Your task to perform on an android device: Check the news Image 0: 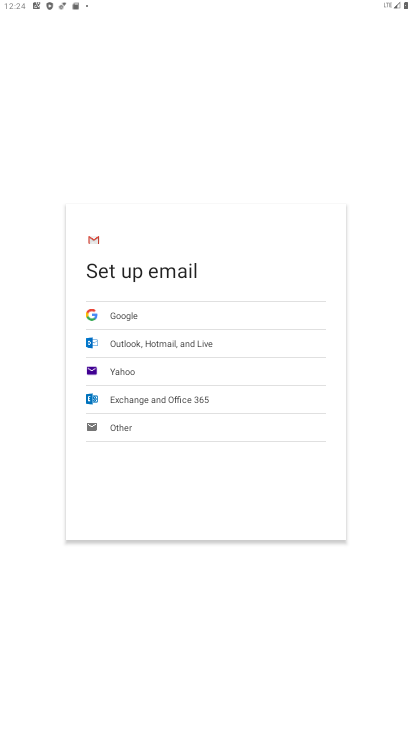
Step 0: press home button
Your task to perform on an android device: Check the news Image 1: 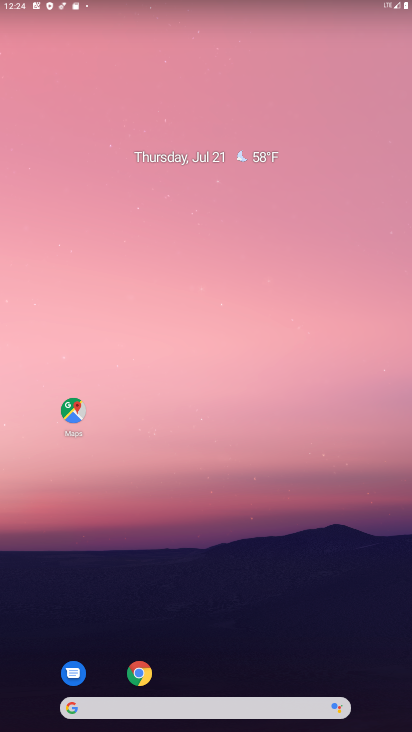
Step 1: drag from (272, 662) to (253, 232)
Your task to perform on an android device: Check the news Image 2: 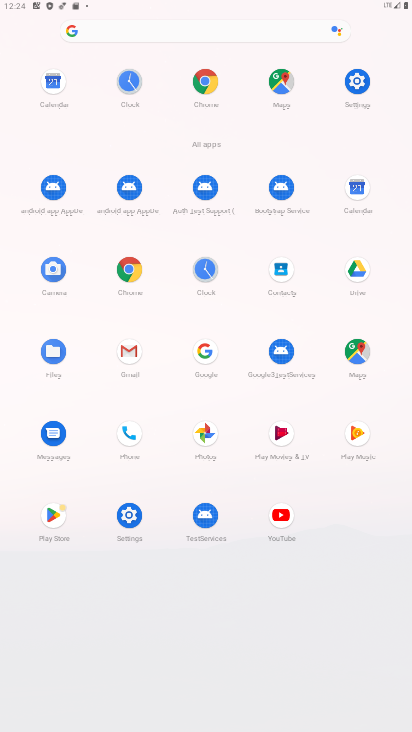
Step 2: click (195, 90)
Your task to perform on an android device: Check the news Image 3: 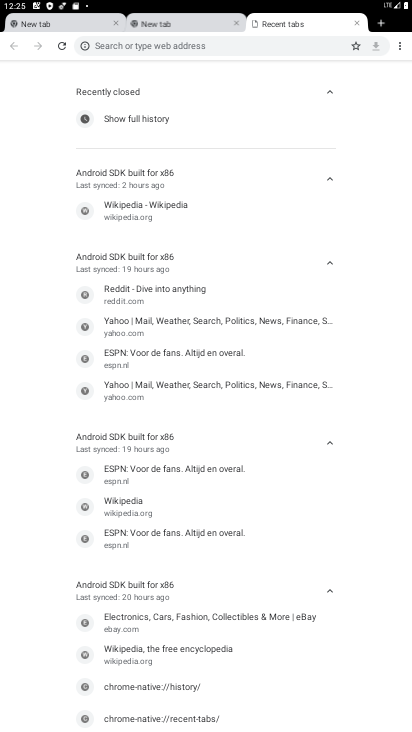
Step 3: click (363, 22)
Your task to perform on an android device: Check the news Image 4: 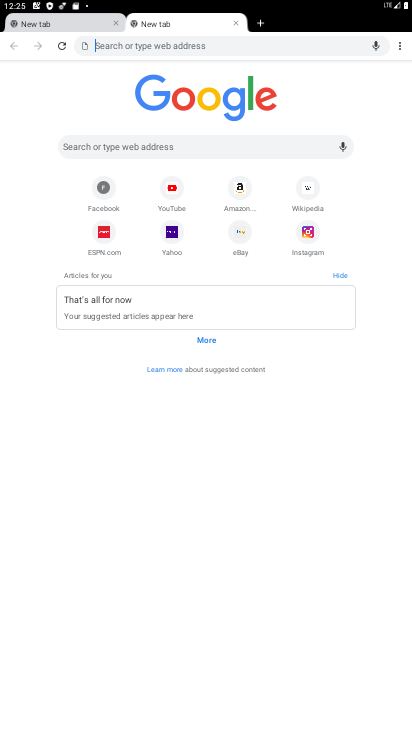
Step 4: click (242, 141)
Your task to perform on an android device: Check the news Image 5: 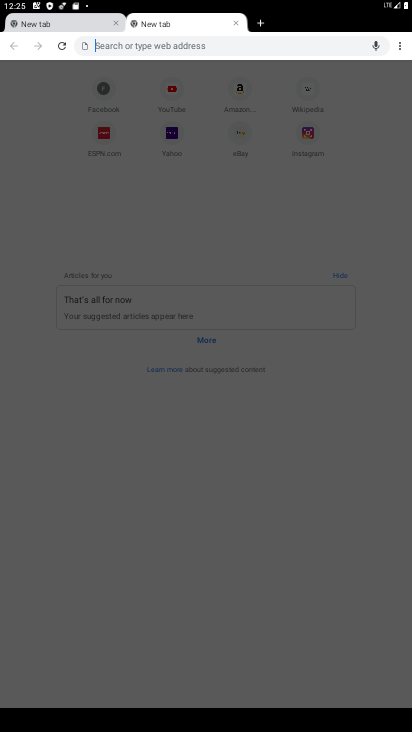
Step 5: type "Check the news  "
Your task to perform on an android device: Check the news Image 6: 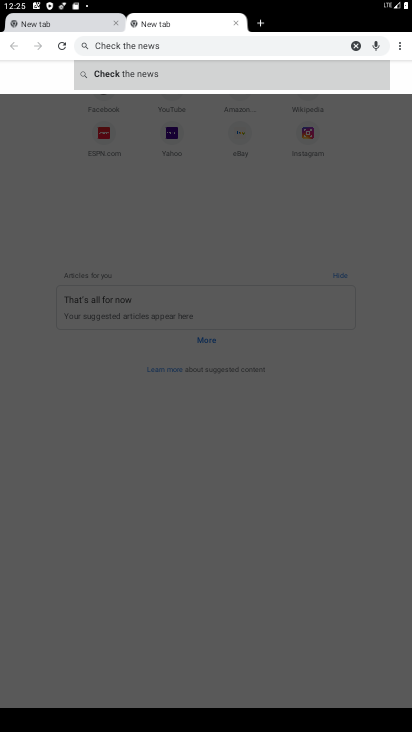
Step 6: click (107, 78)
Your task to perform on an android device: Check the news Image 7: 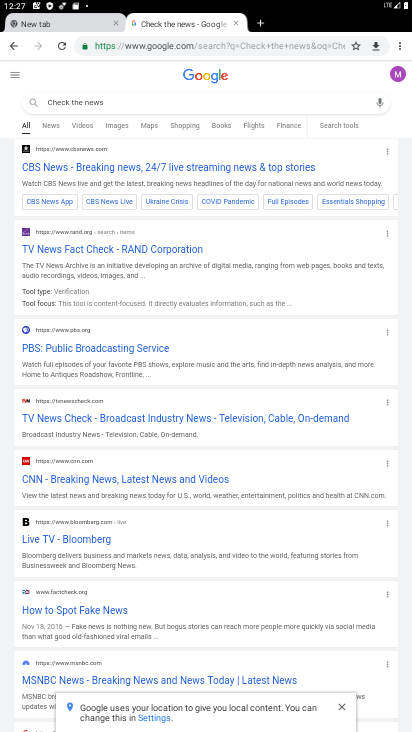
Step 7: task complete